Your task to perform on an android device: Open notification settings Image 0: 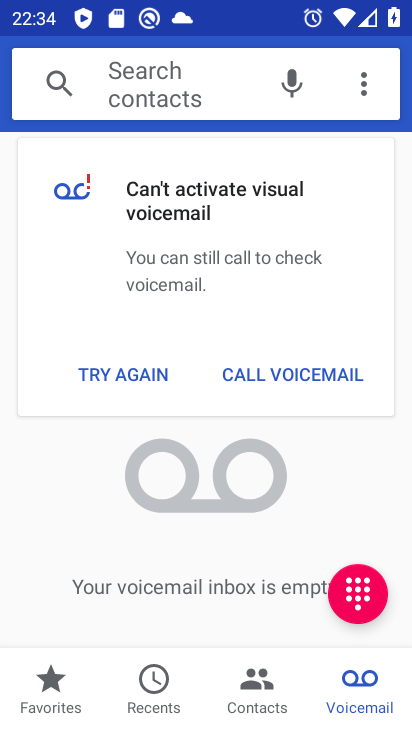
Step 0: press home button
Your task to perform on an android device: Open notification settings Image 1: 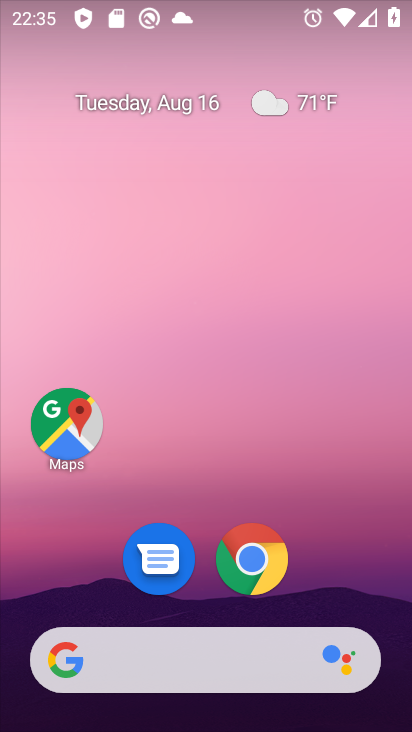
Step 1: drag from (194, 665) to (275, 97)
Your task to perform on an android device: Open notification settings Image 2: 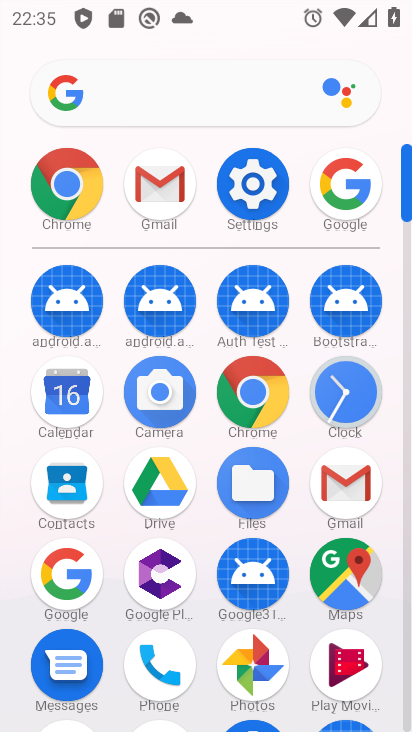
Step 2: click (252, 184)
Your task to perform on an android device: Open notification settings Image 3: 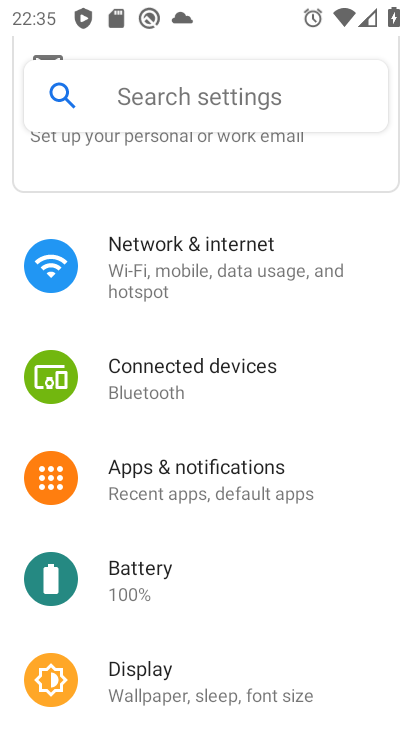
Step 3: click (209, 469)
Your task to perform on an android device: Open notification settings Image 4: 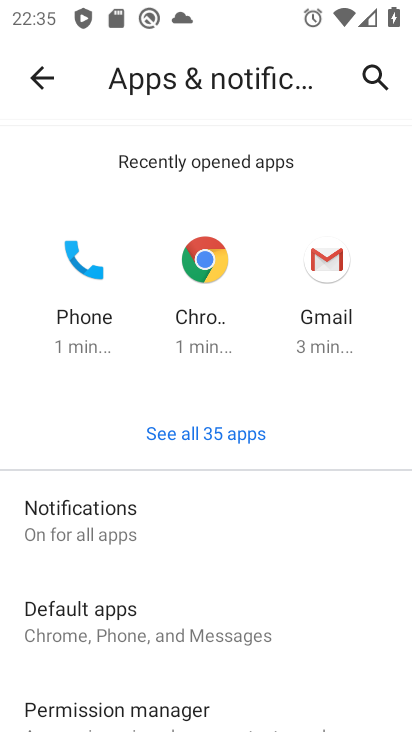
Step 4: click (117, 528)
Your task to perform on an android device: Open notification settings Image 5: 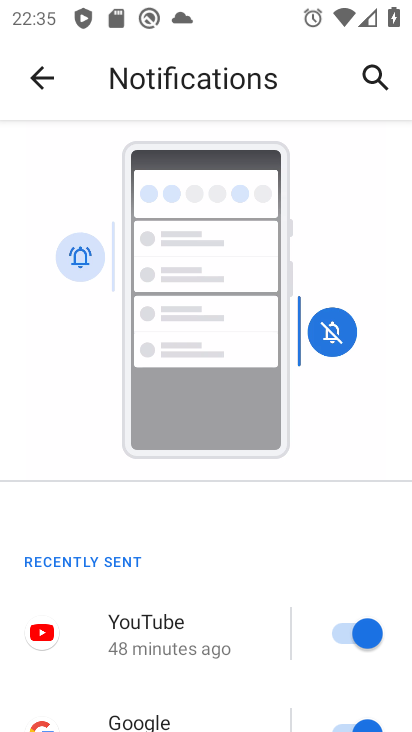
Step 5: task complete